Your task to perform on an android device: show emergency info Image 0: 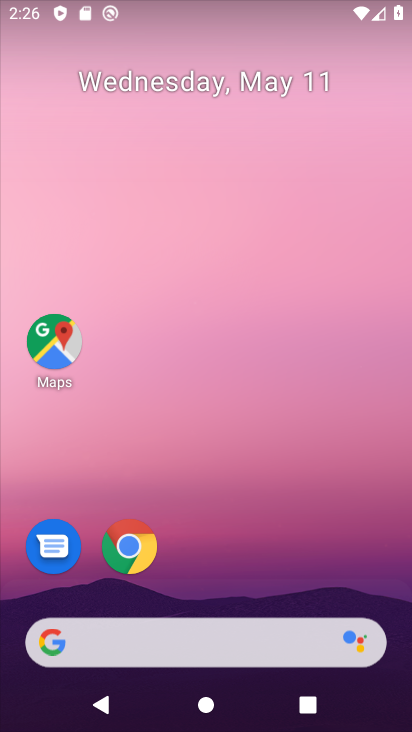
Step 0: drag from (188, 596) to (237, 11)
Your task to perform on an android device: show emergency info Image 1: 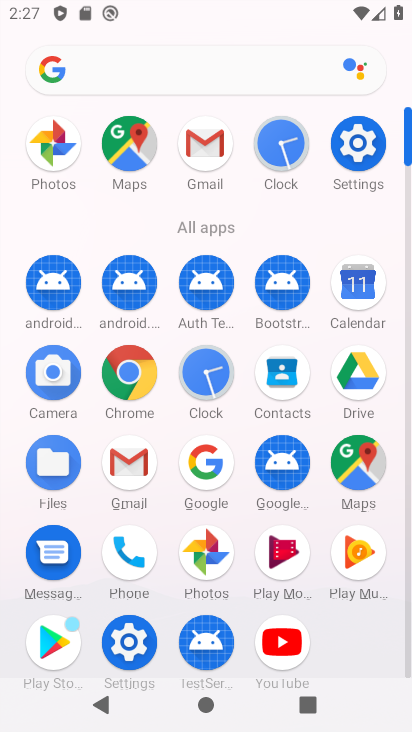
Step 1: click (122, 651)
Your task to perform on an android device: show emergency info Image 2: 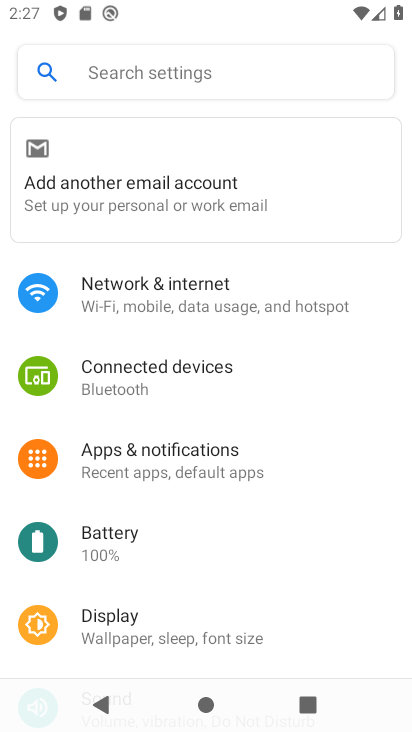
Step 2: drag from (178, 568) to (184, 377)
Your task to perform on an android device: show emergency info Image 3: 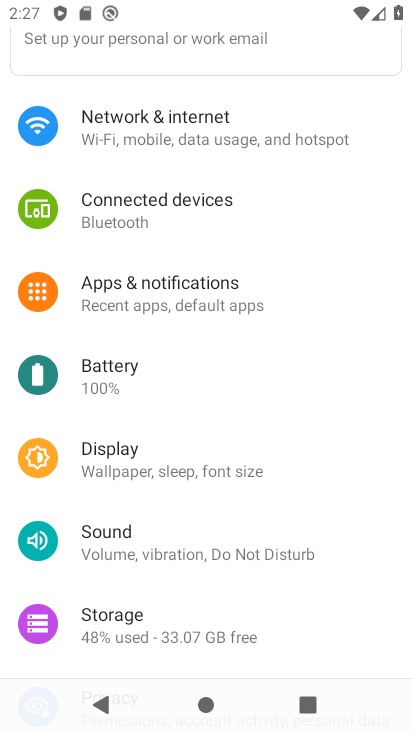
Step 3: click (175, 227)
Your task to perform on an android device: show emergency info Image 4: 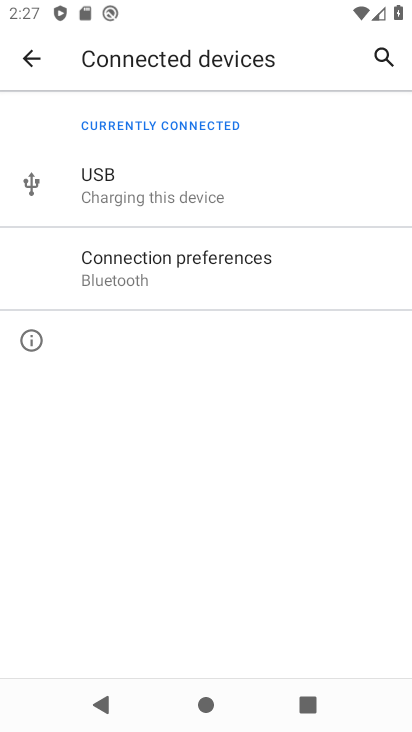
Step 4: press back button
Your task to perform on an android device: show emergency info Image 5: 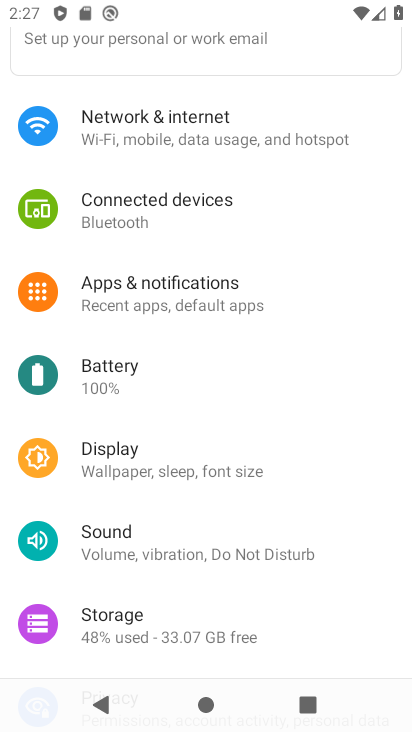
Step 5: drag from (184, 628) to (158, 243)
Your task to perform on an android device: show emergency info Image 6: 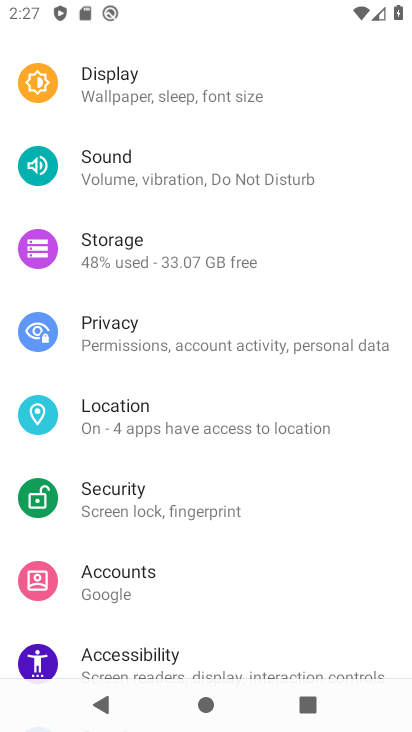
Step 6: drag from (203, 608) to (204, 313)
Your task to perform on an android device: show emergency info Image 7: 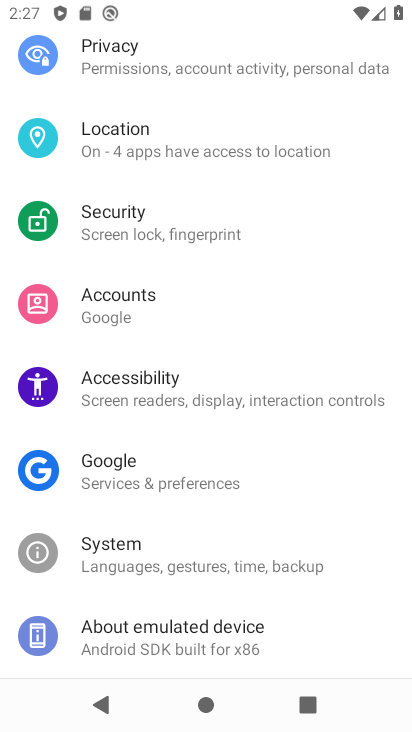
Step 7: click (157, 640)
Your task to perform on an android device: show emergency info Image 8: 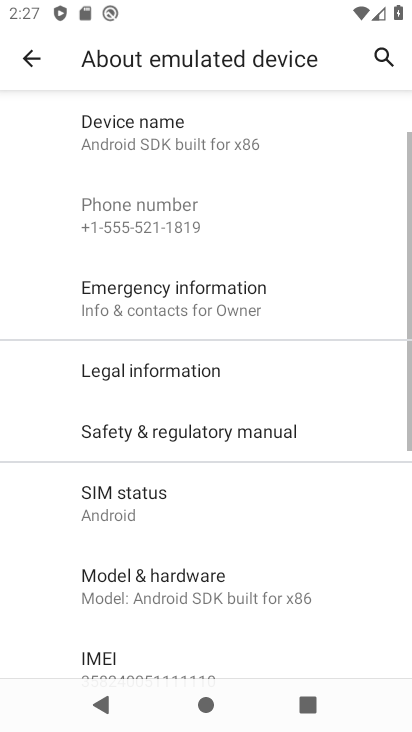
Step 8: click (166, 307)
Your task to perform on an android device: show emergency info Image 9: 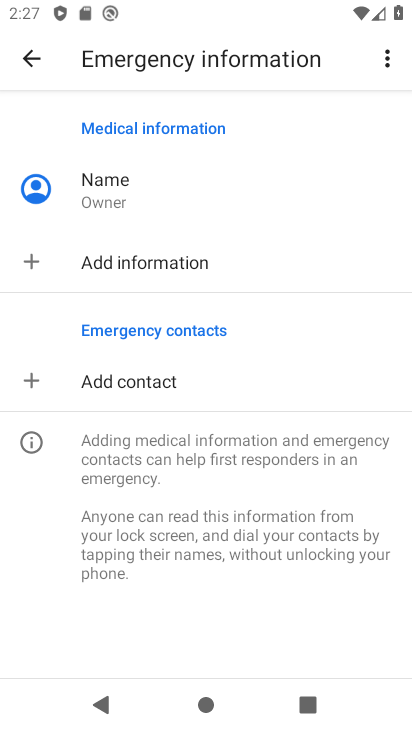
Step 9: task complete